Your task to perform on an android device: open device folders in google photos Image 0: 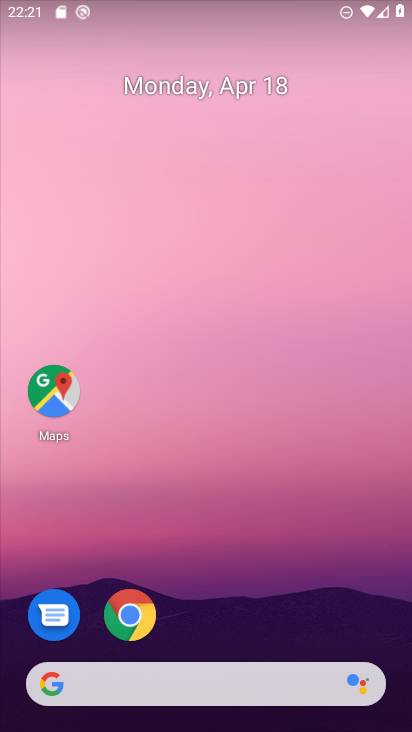
Step 0: drag from (369, 606) to (357, 40)
Your task to perform on an android device: open device folders in google photos Image 1: 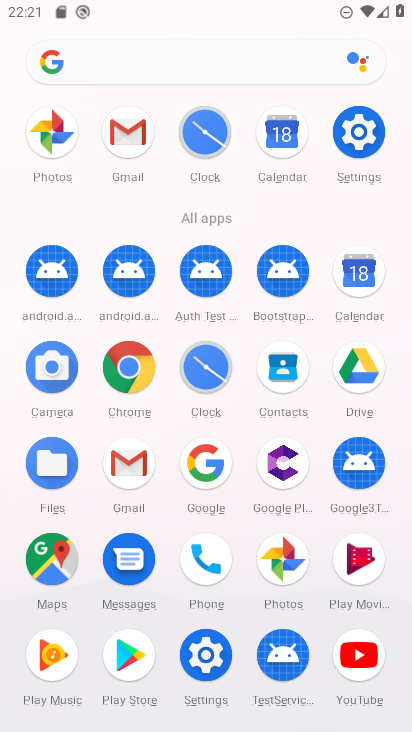
Step 1: click (41, 133)
Your task to perform on an android device: open device folders in google photos Image 2: 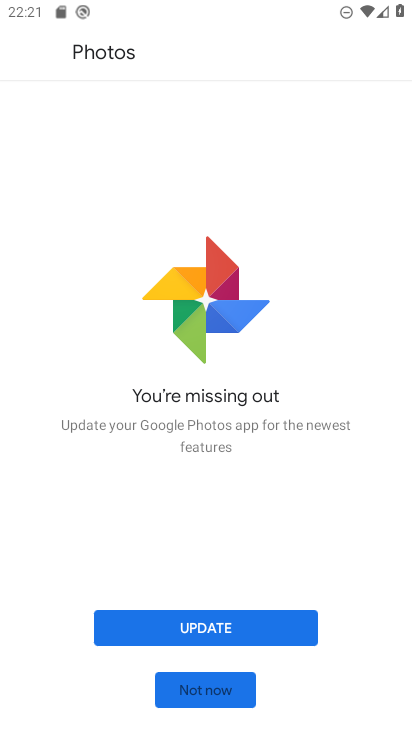
Step 2: click (203, 696)
Your task to perform on an android device: open device folders in google photos Image 3: 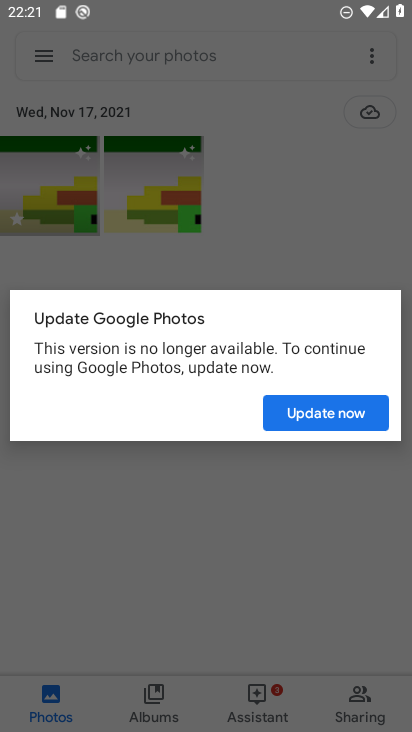
Step 3: click (327, 422)
Your task to perform on an android device: open device folders in google photos Image 4: 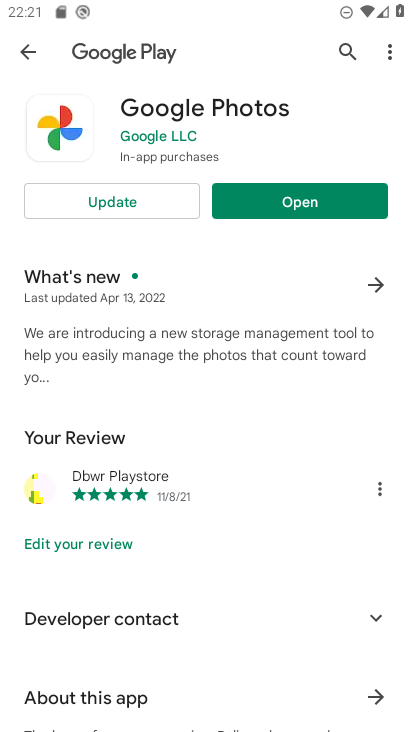
Step 4: click (302, 204)
Your task to perform on an android device: open device folders in google photos Image 5: 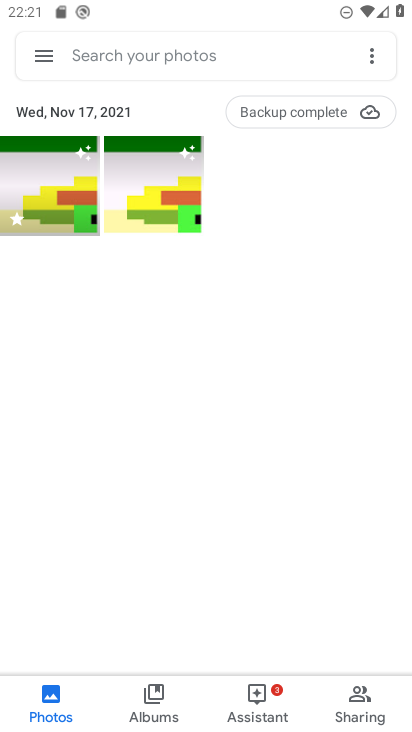
Step 5: click (40, 62)
Your task to perform on an android device: open device folders in google photos Image 6: 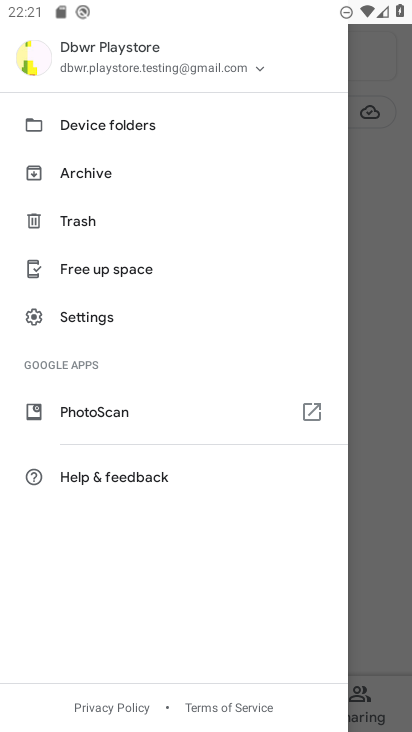
Step 6: click (76, 133)
Your task to perform on an android device: open device folders in google photos Image 7: 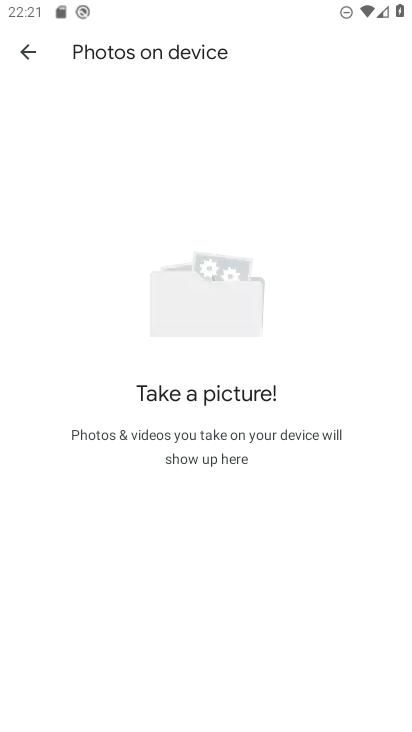
Step 7: task complete